Your task to perform on an android device: toggle location history Image 0: 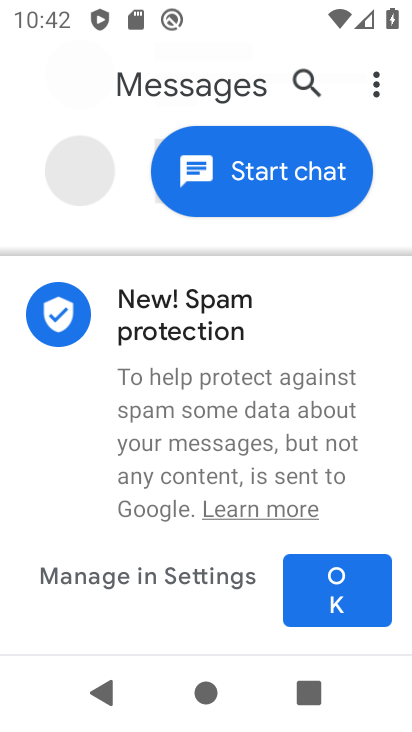
Step 0: press home button
Your task to perform on an android device: toggle location history Image 1: 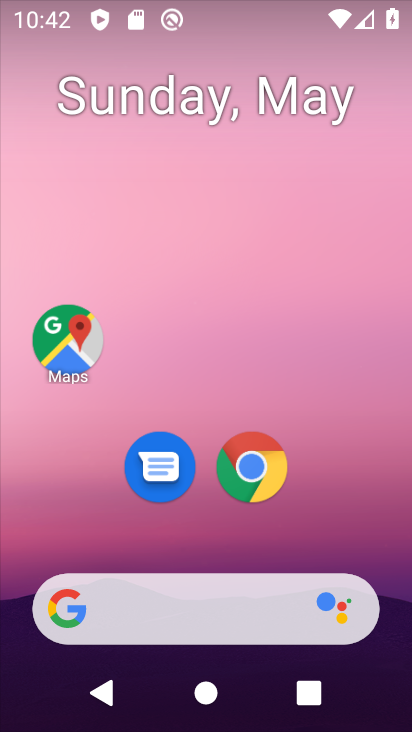
Step 1: click (67, 354)
Your task to perform on an android device: toggle location history Image 2: 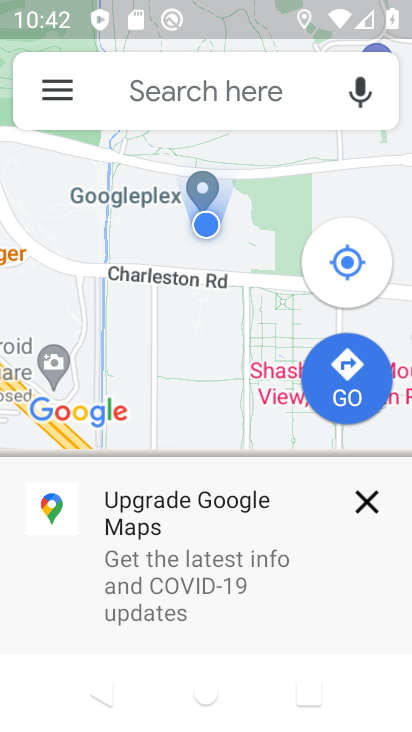
Step 2: click (57, 88)
Your task to perform on an android device: toggle location history Image 3: 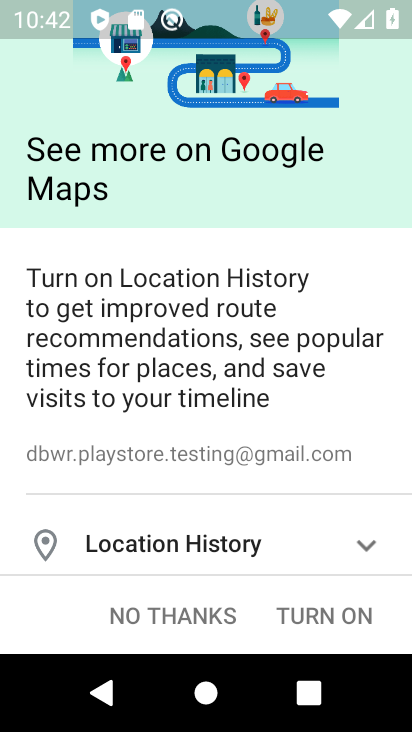
Step 3: click (128, 615)
Your task to perform on an android device: toggle location history Image 4: 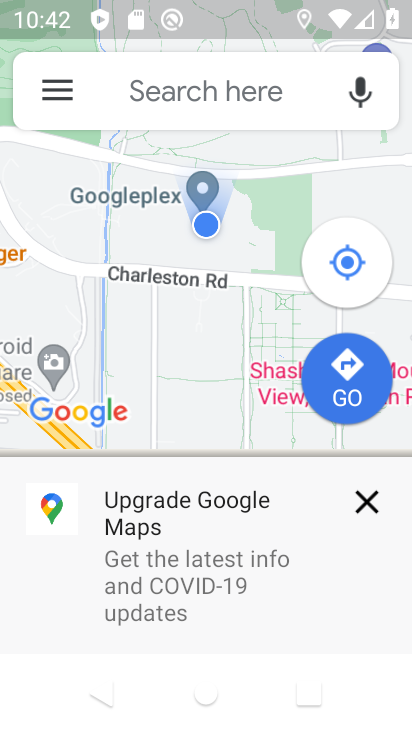
Step 4: click (56, 91)
Your task to perform on an android device: toggle location history Image 5: 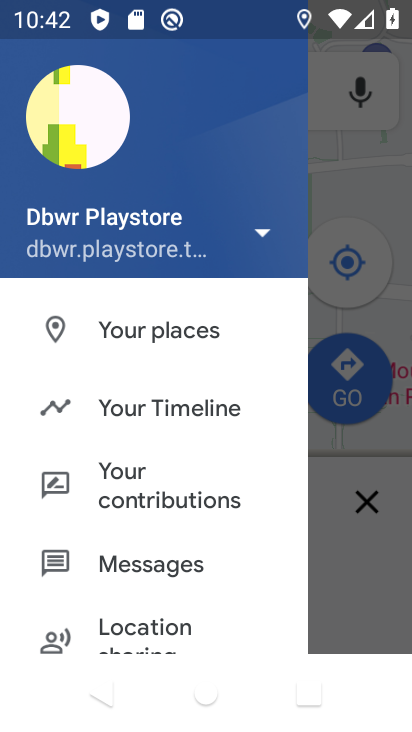
Step 5: click (141, 398)
Your task to perform on an android device: toggle location history Image 6: 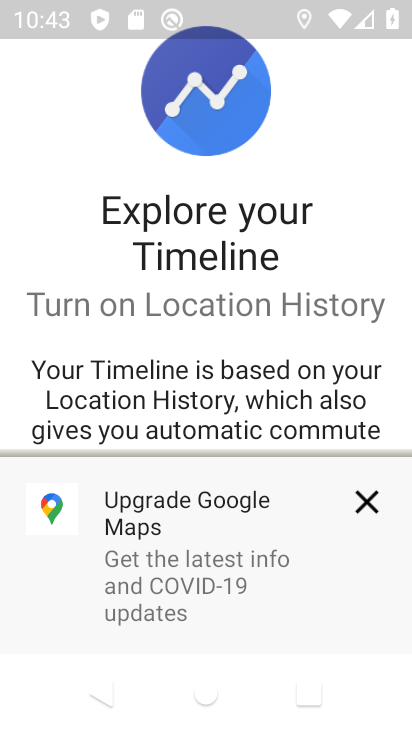
Step 6: click (358, 510)
Your task to perform on an android device: toggle location history Image 7: 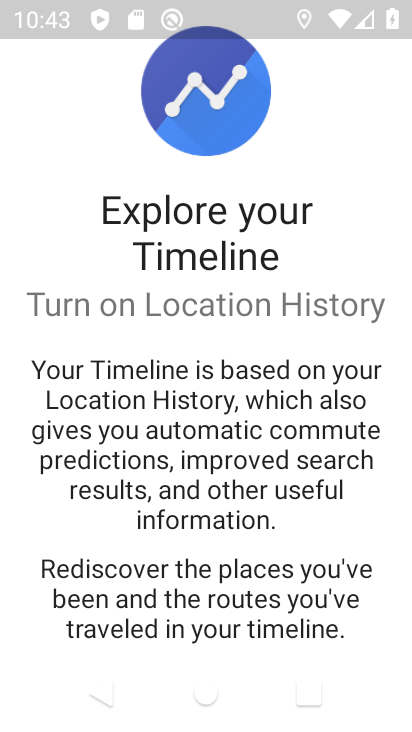
Step 7: drag from (218, 458) to (191, 131)
Your task to perform on an android device: toggle location history Image 8: 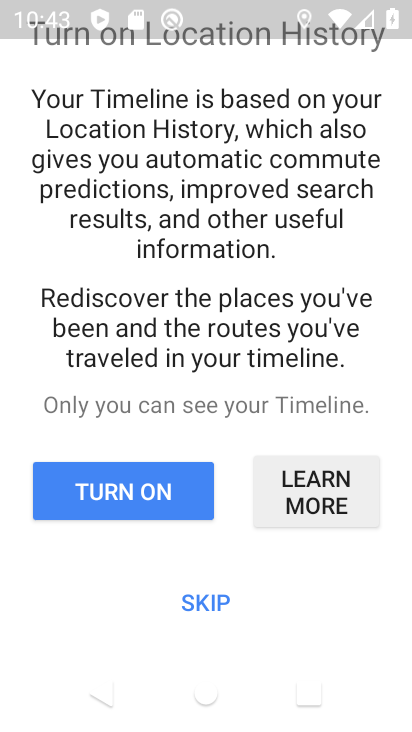
Step 8: click (205, 607)
Your task to perform on an android device: toggle location history Image 9: 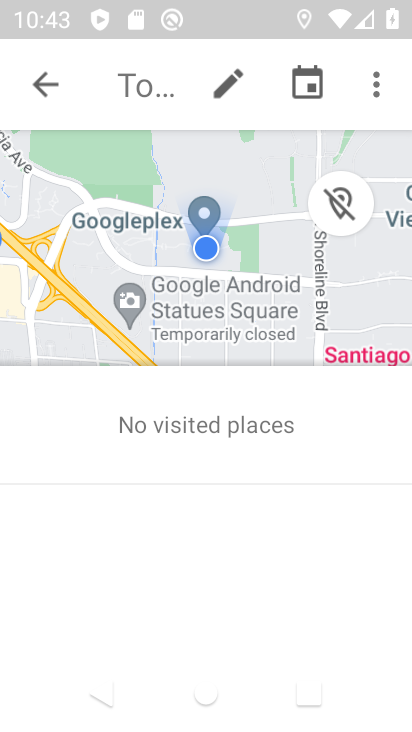
Step 9: click (378, 85)
Your task to perform on an android device: toggle location history Image 10: 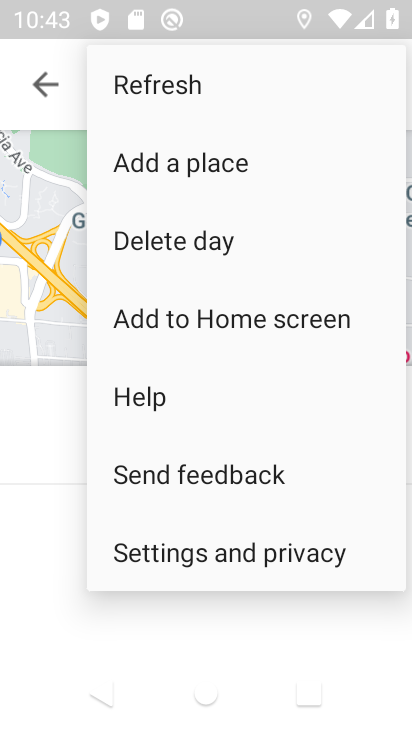
Step 10: click (230, 555)
Your task to perform on an android device: toggle location history Image 11: 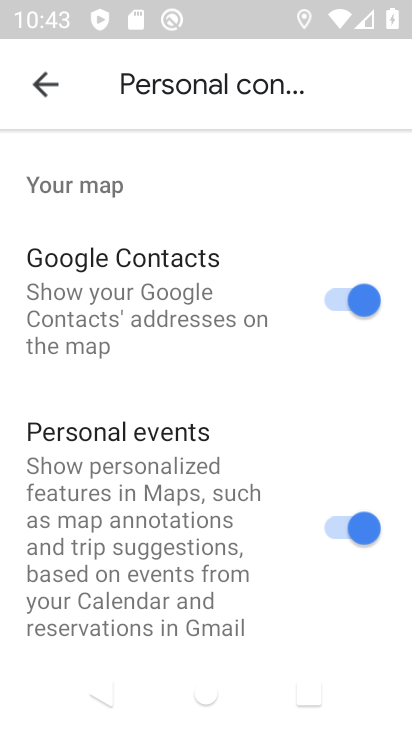
Step 11: drag from (126, 515) to (115, 58)
Your task to perform on an android device: toggle location history Image 12: 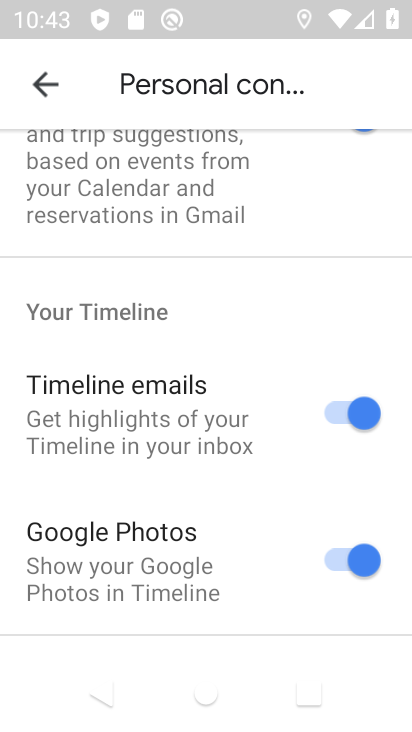
Step 12: drag from (178, 531) to (153, 146)
Your task to perform on an android device: toggle location history Image 13: 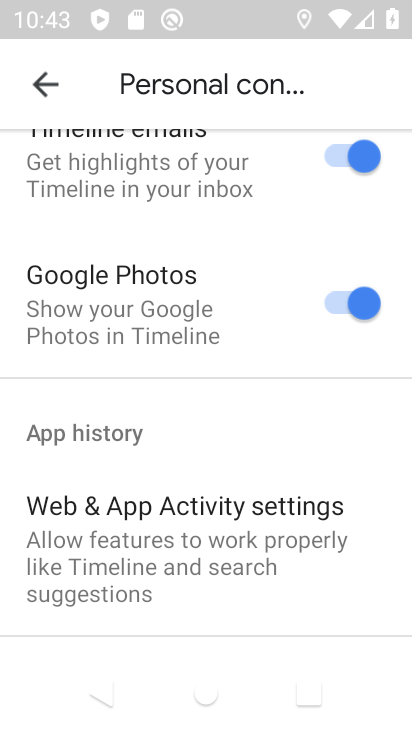
Step 13: drag from (145, 569) to (113, 170)
Your task to perform on an android device: toggle location history Image 14: 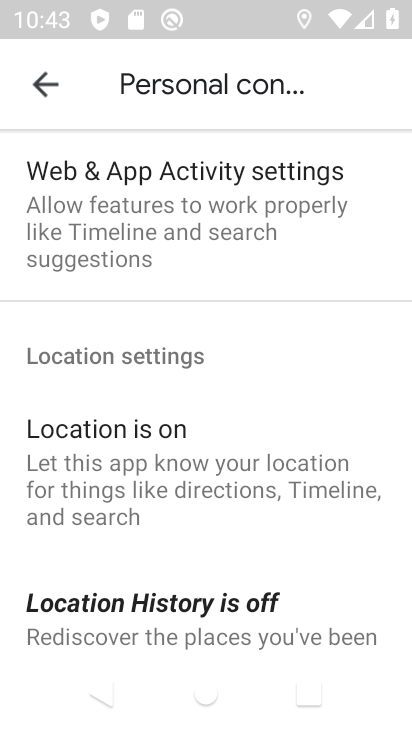
Step 14: click (151, 619)
Your task to perform on an android device: toggle location history Image 15: 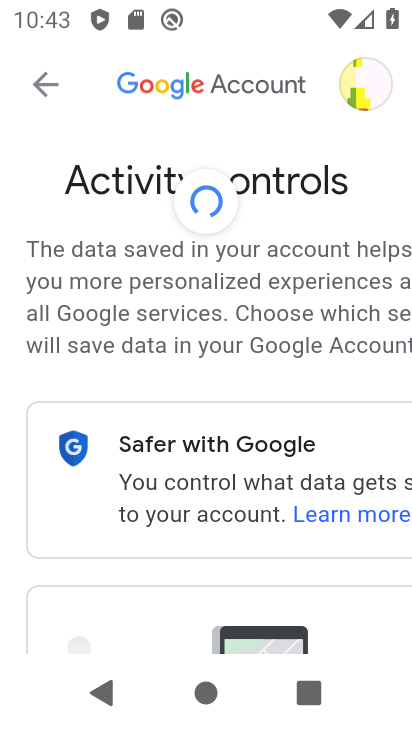
Step 15: drag from (173, 599) to (180, 70)
Your task to perform on an android device: toggle location history Image 16: 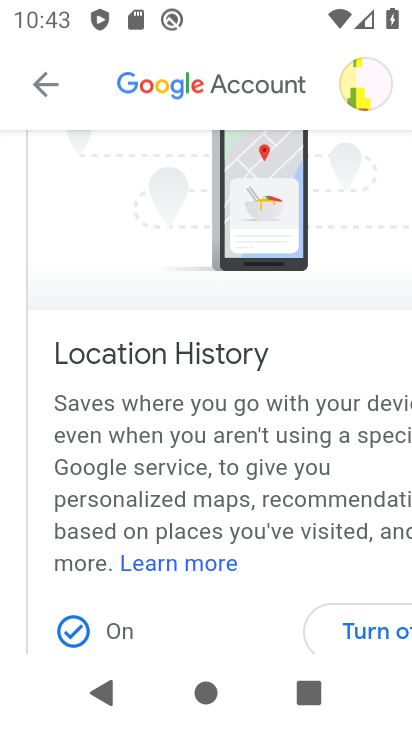
Step 16: drag from (215, 541) to (224, 244)
Your task to perform on an android device: toggle location history Image 17: 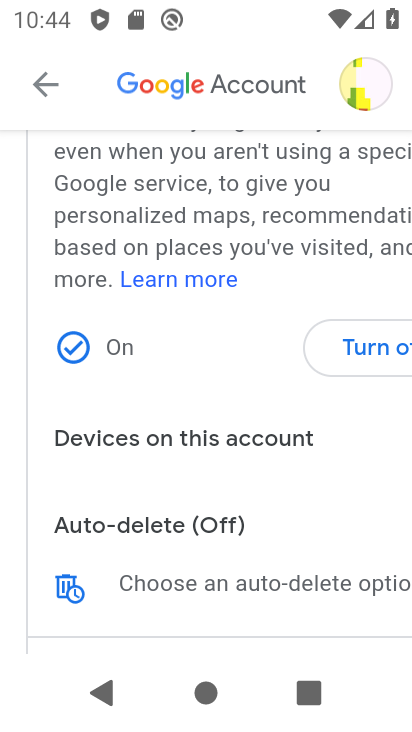
Step 17: click (370, 345)
Your task to perform on an android device: toggle location history Image 18: 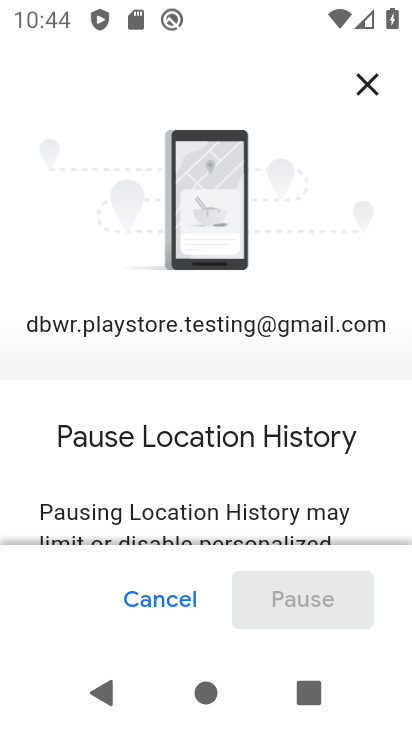
Step 18: drag from (178, 463) to (166, 4)
Your task to perform on an android device: toggle location history Image 19: 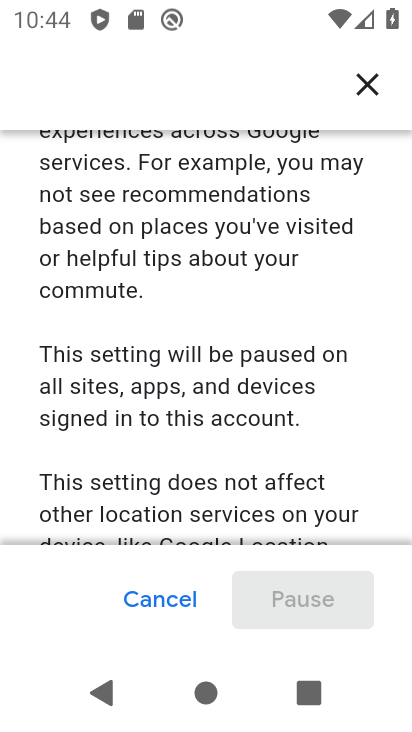
Step 19: drag from (187, 429) to (174, 46)
Your task to perform on an android device: toggle location history Image 20: 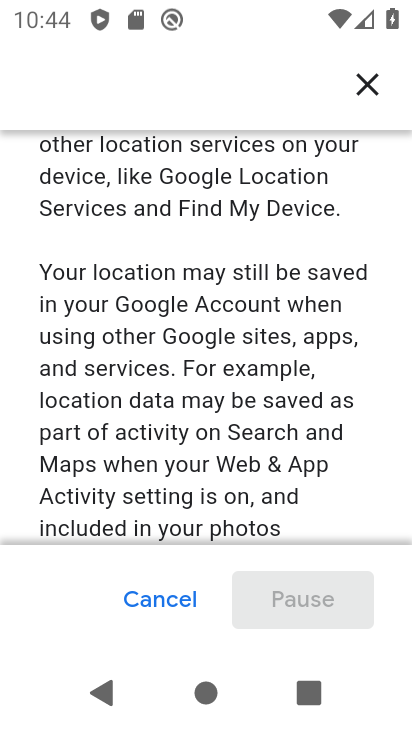
Step 20: drag from (172, 435) to (145, 39)
Your task to perform on an android device: toggle location history Image 21: 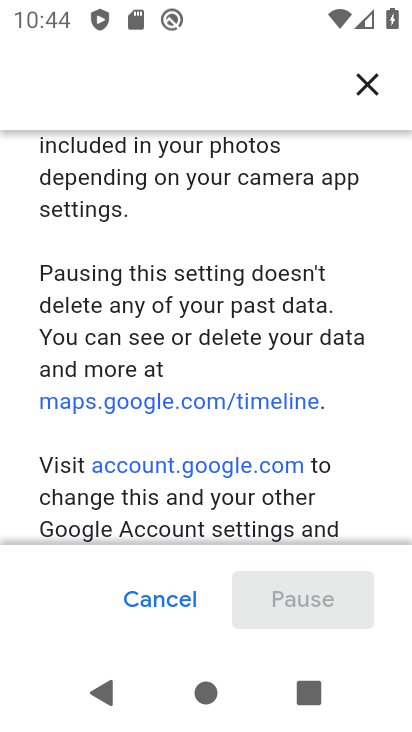
Step 21: drag from (176, 402) to (176, 70)
Your task to perform on an android device: toggle location history Image 22: 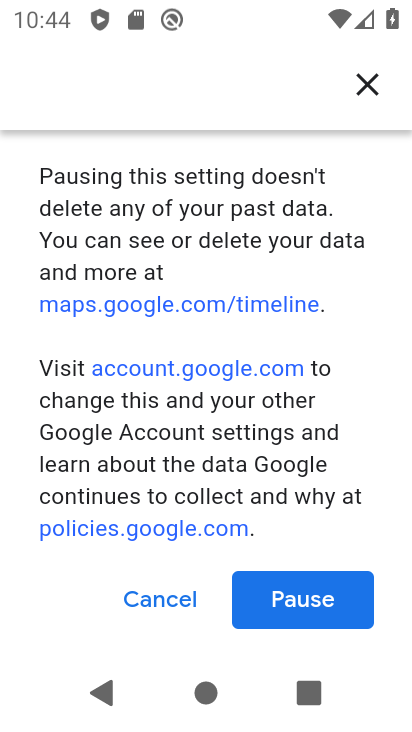
Step 22: click (313, 605)
Your task to perform on an android device: toggle location history Image 23: 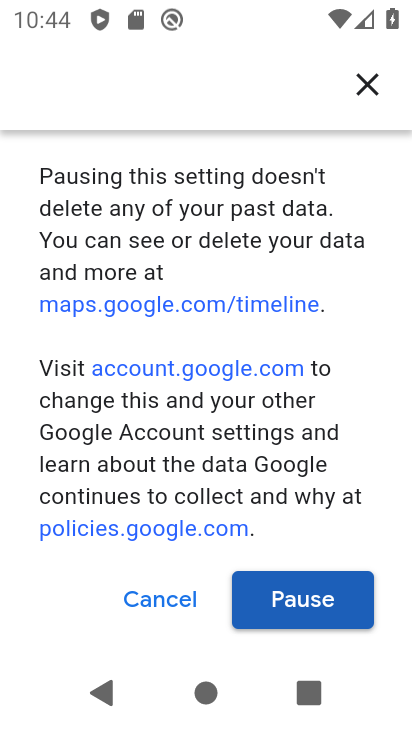
Step 23: click (305, 603)
Your task to perform on an android device: toggle location history Image 24: 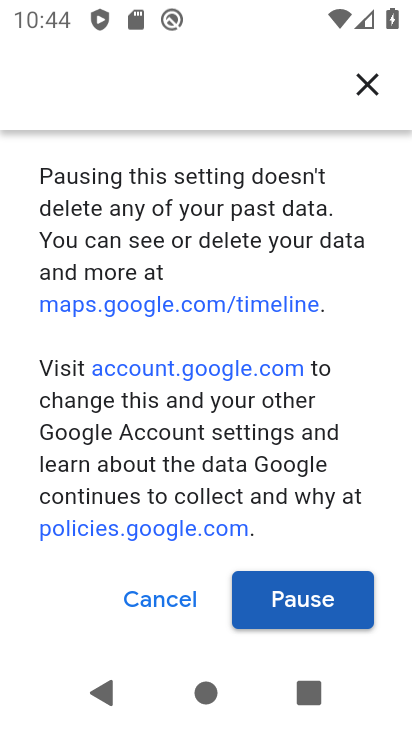
Step 24: click (304, 603)
Your task to perform on an android device: toggle location history Image 25: 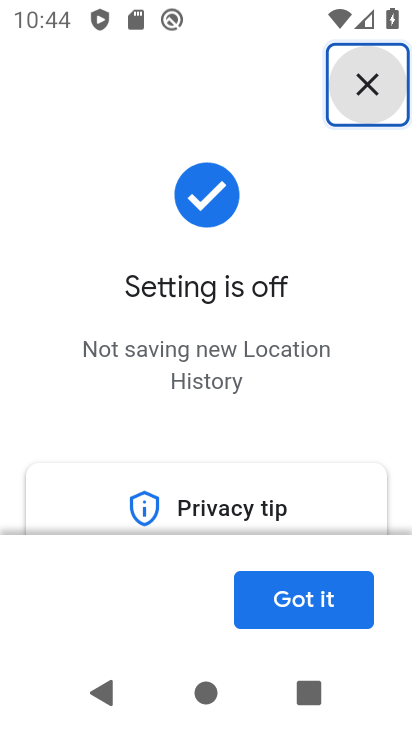
Step 25: click (304, 603)
Your task to perform on an android device: toggle location history Image 26: 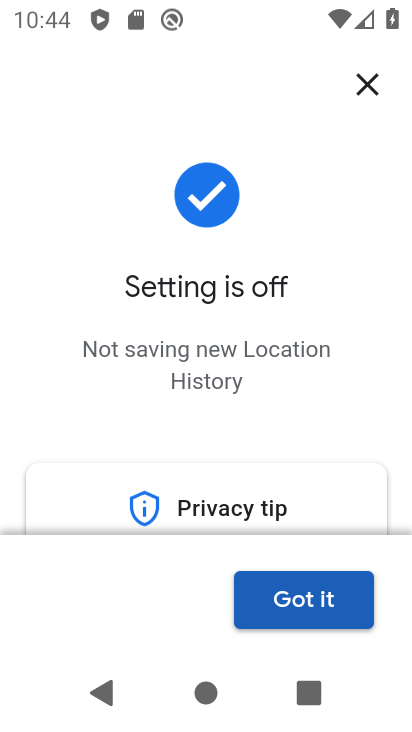
Step 26: click (302, 607)
Your task to perform on an android device: toggle location history Image 27: 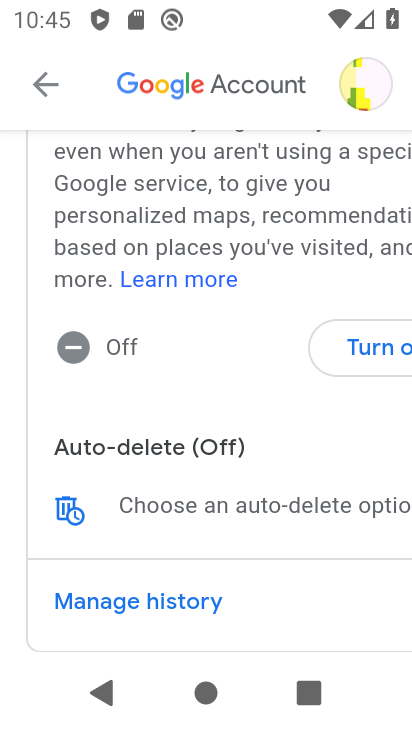
Step 27: task complete